Your task to perform on an android device: Open the Play Movies app and select the watchlist tab. Image 0: 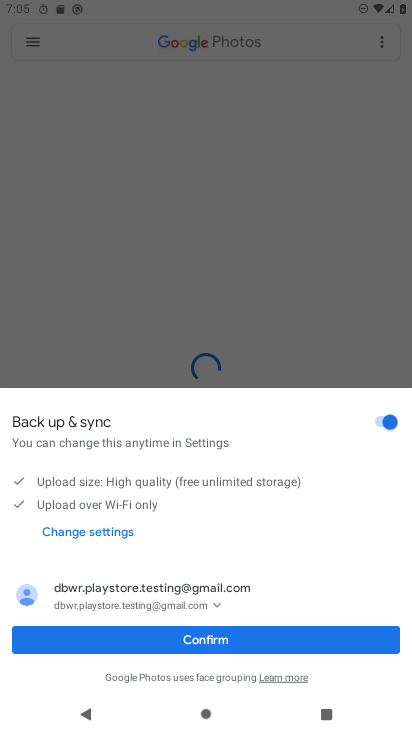
Step 0: press home button
Your task to perform on an android device: Open the Play Movies app and select the watchlist tab. Image 1: 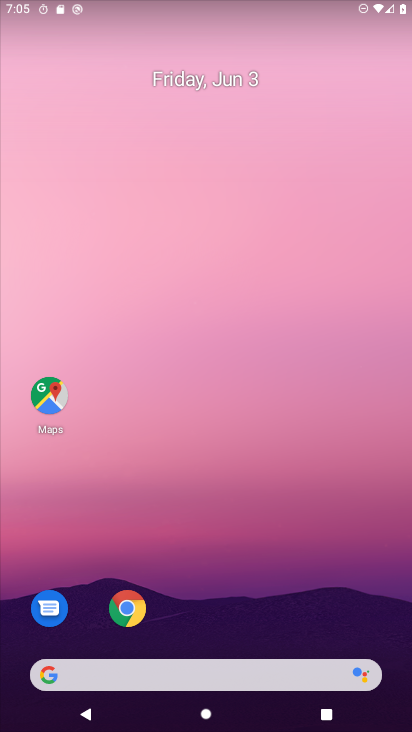
Step 1: drag from (187, 623) to (201, 216)
Your task to perform on an android device: Open the Play Movies app and select the watchlist tab. Image 2: 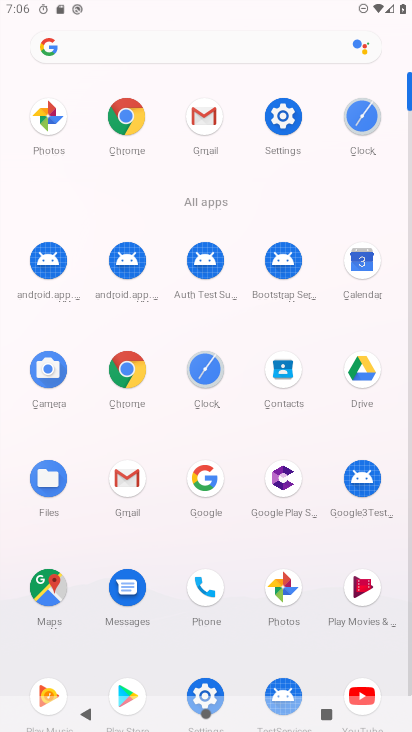
Step 2: click (369, 587)
Your task to perform on an android device: Open the Play Movies app and select the watchlist tab. Image 3: 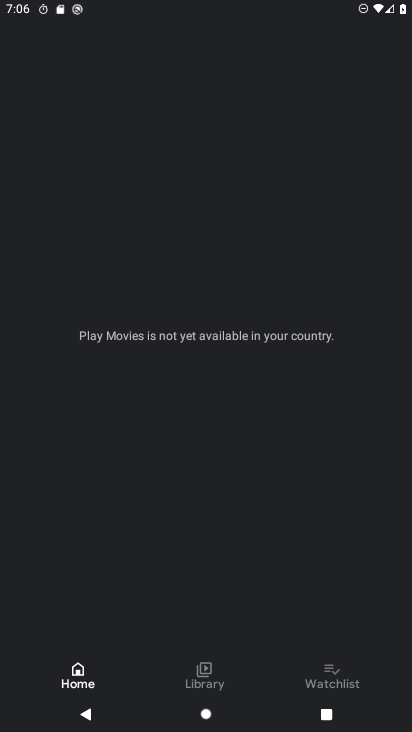
Step 3: click (332, 684)
Your task to perform on an android device: Open the Play Movies app and select the watchlist tab. Image 4: 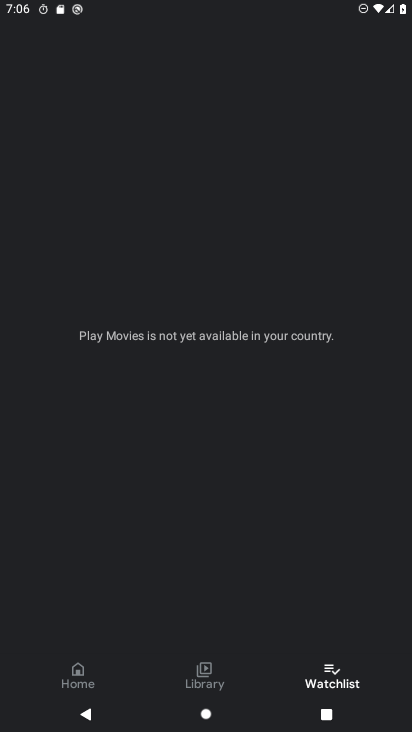
Step 4: task complete